Your task to perform on an android device: check android version Image 0: 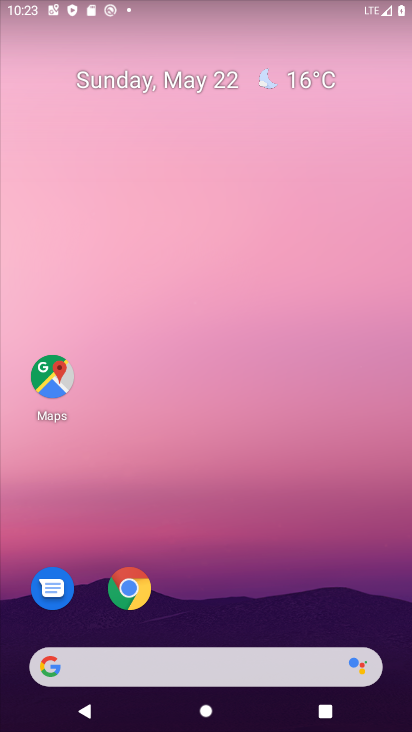
Step 0: drag from (201, 607) to (236, 137)
Your task to perform on an android device: check android version Image 1: 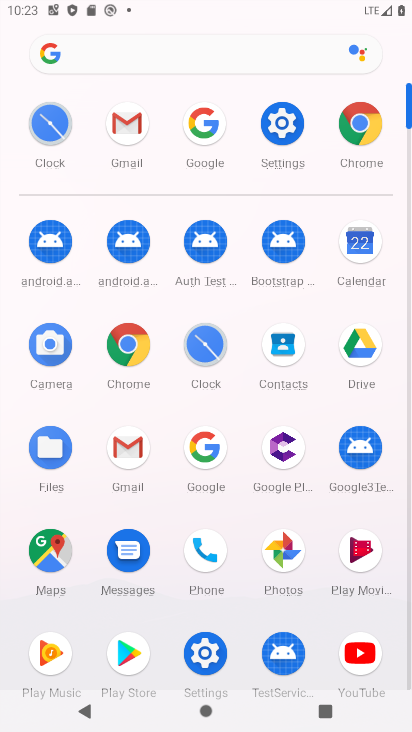
Step 1: click (267, 122)
Your task to perform on an android device: check android version Image 2: 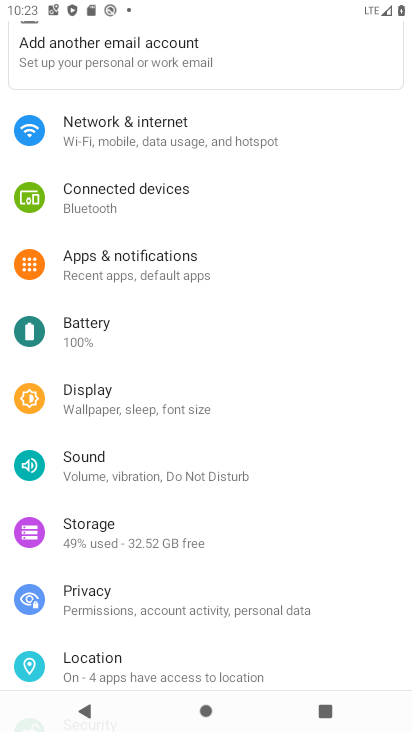
Step 2: drag from (241, 662) to (250, 204)
Your task to perform on an android device: check android version Image 3: 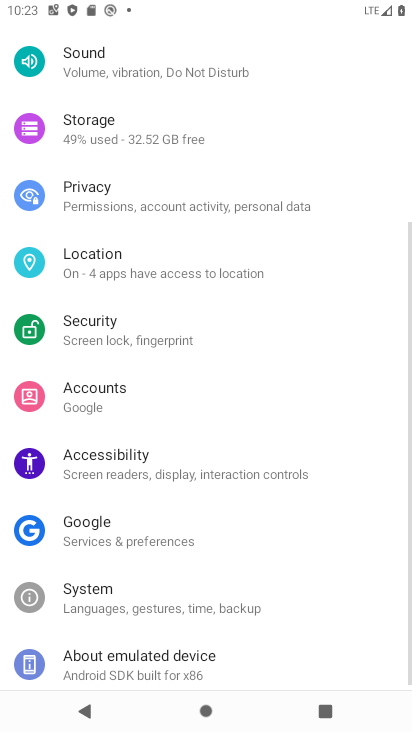
Step 3: drag from (207, 642) to (236, 269)
Your task to perform on an android device: check android version Image 4: 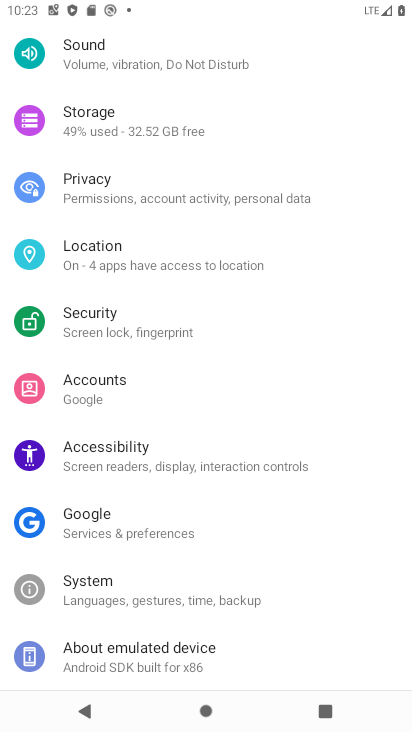
Step 4: click (192, 647)
Your task to perform on an android device: check android version Image 5: 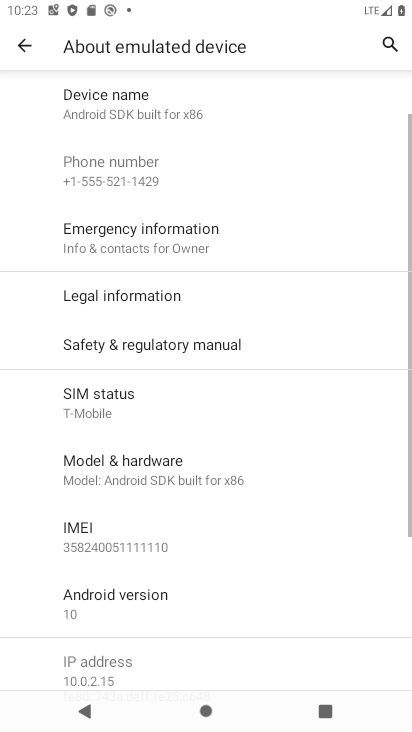
Step 5: drag from (194, 530) to (268, 295)
Your task to perform on an android device: check android version Image 6: 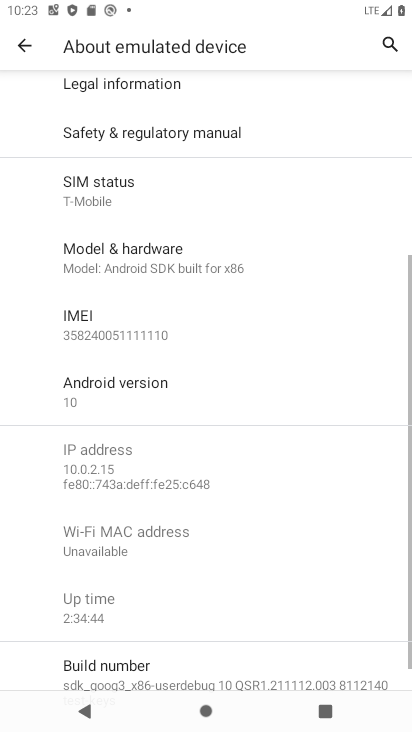
Step 6: click (171, 393)
Your task to perform on an android device: check android version Image 7: 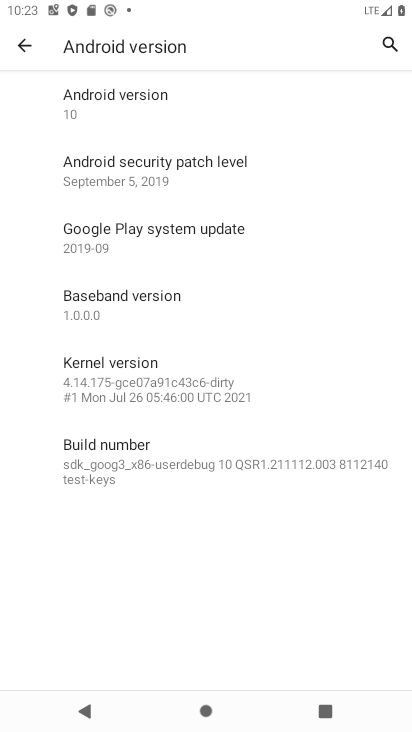
Step 7: click (170, 120)
Your task to perform on an android device: check android version Image 8: 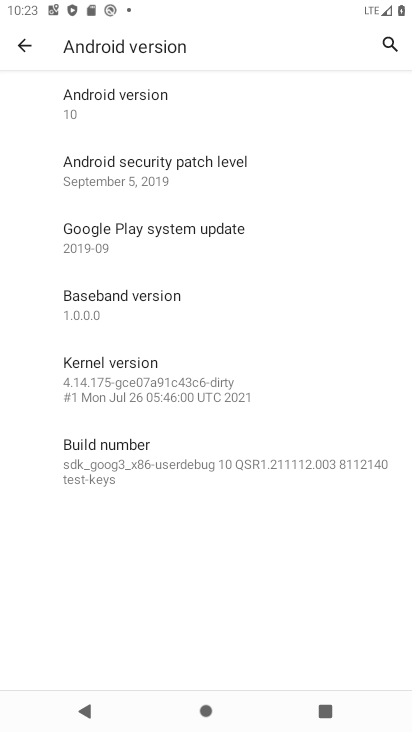
Step 8: task complete